Your task to perform on an android device: find snoozed emails in the gmail app Image 0: 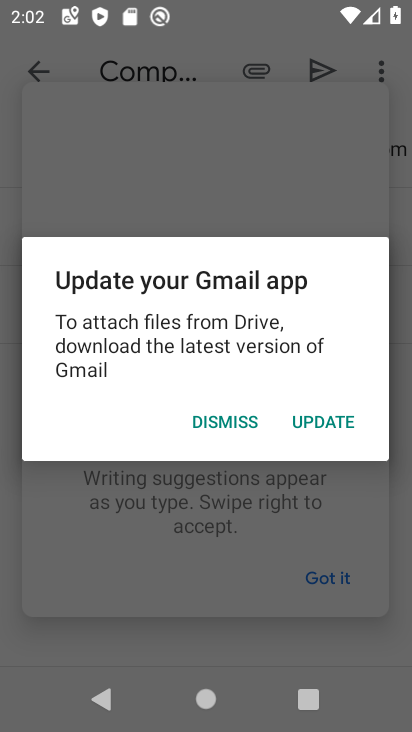
Step 0: press home button
Your task to perform on an android device: find snoozed emails in the gmail app Image 1: 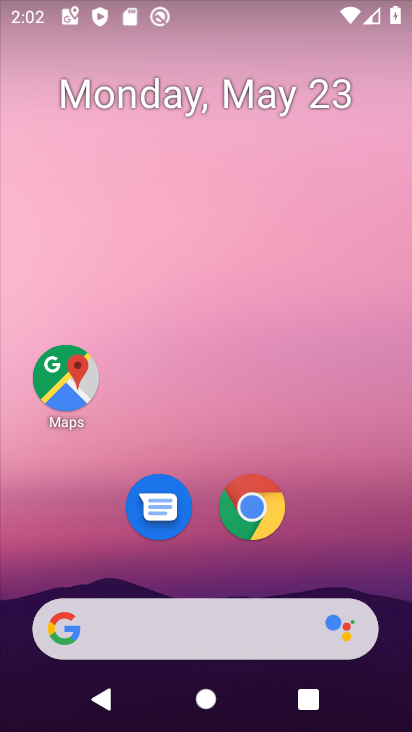
Step 1: drag from (234, 687) to (218, 183)
Your task to perform on an android device: find snoozed emails in the gmail app Image 2: 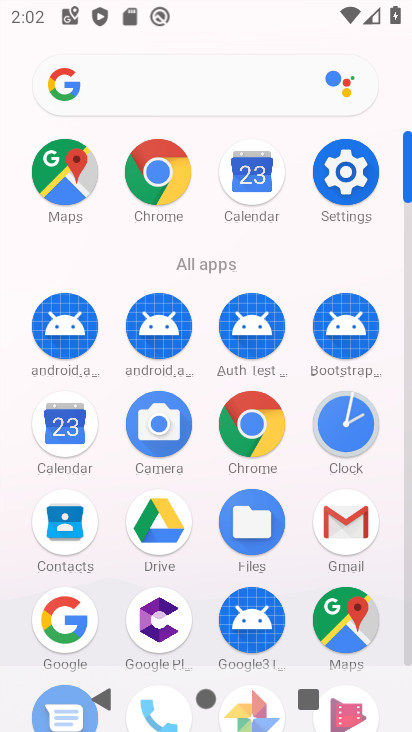
Step 2: click (345, 523)
Your task to perform on an android device: find snoozed emails in the gmail app Image 3: 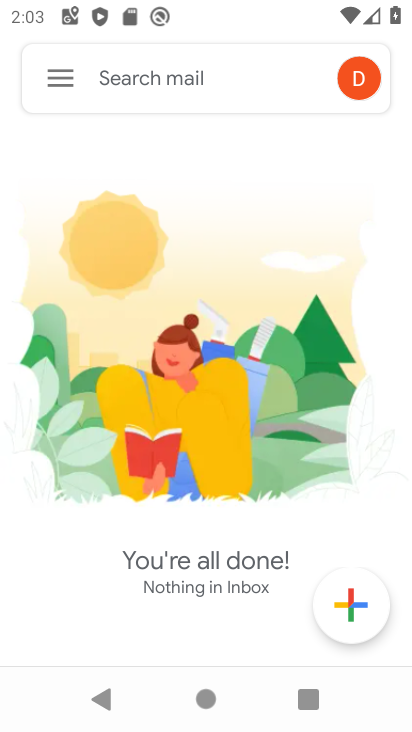
Step 3: click (59, 78)
Your task to perform on an android device: find snoozed emails in the gmail app Image 4: 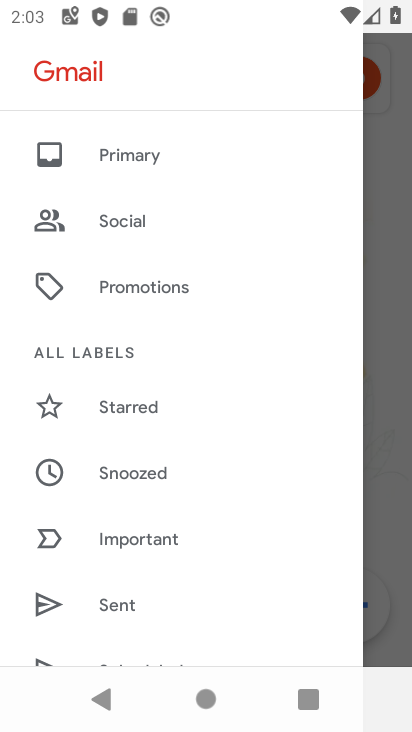
Step 4: click (141, 463)
Your task to perform on an android device: find snoozed emails in the gmail app Image 5: 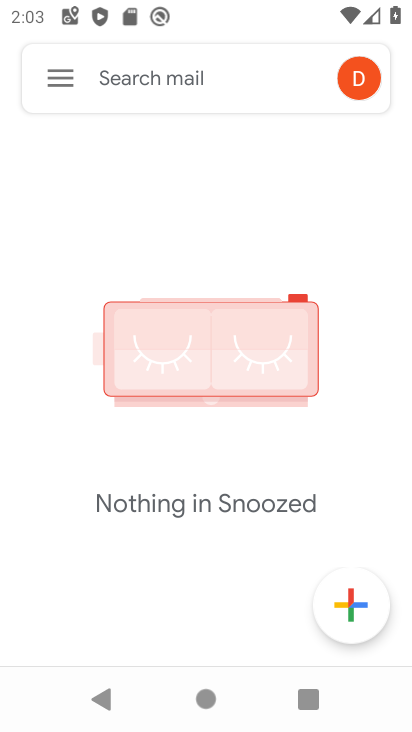
Step 5: task complete